Your task to perform on an android device: all mails in gmail Image 0: 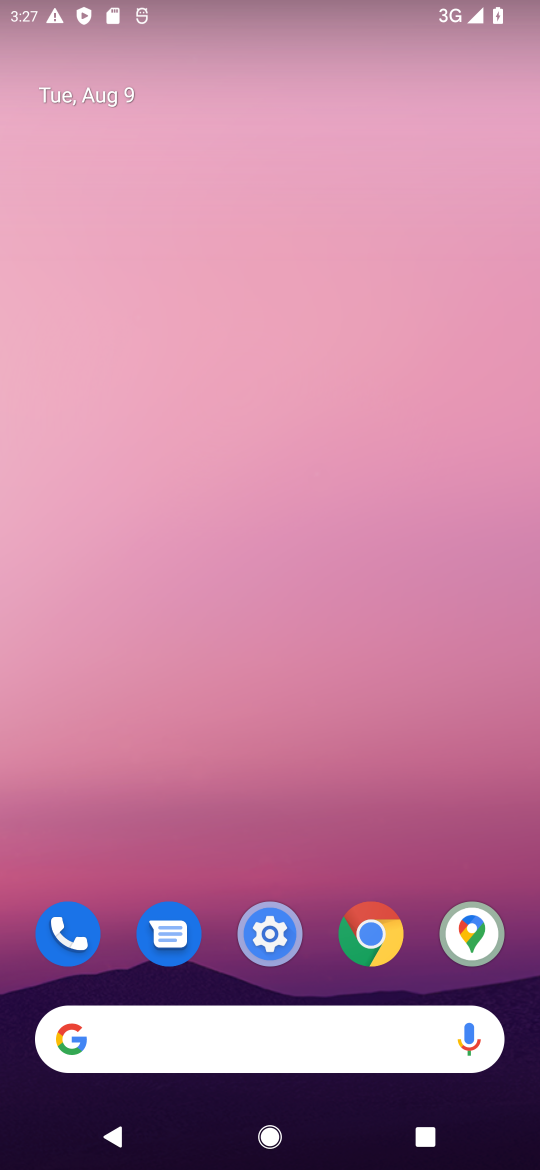
Step 0: drag from (431, 981) to (431, 11)
Your task to perform on an android device: all mails in gmail Image 1: 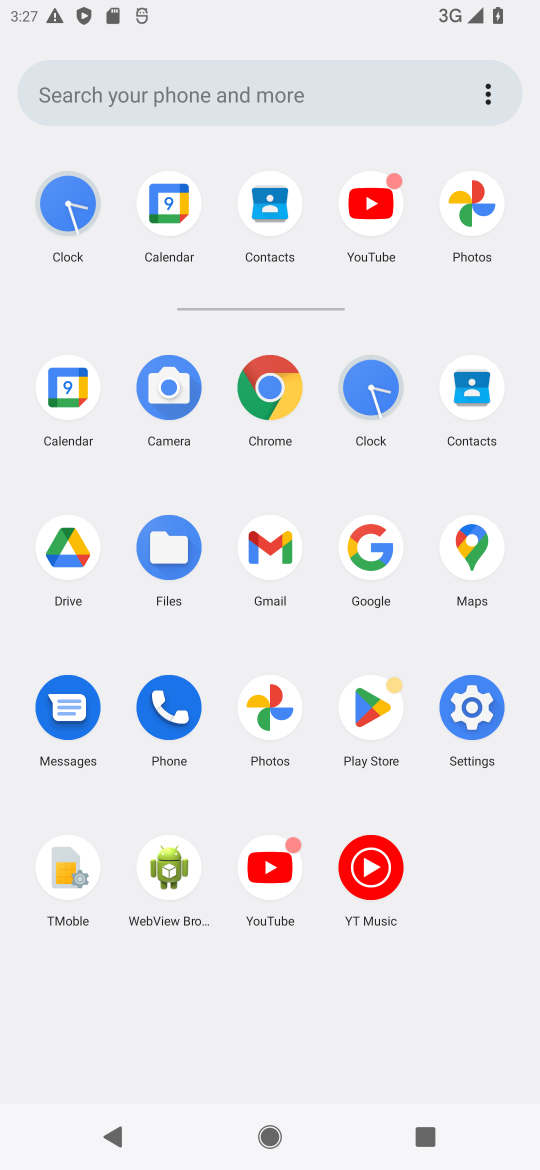
Step 1: click (288, 556)
Your task to perform on an android device: all mails in gmail Image 2: 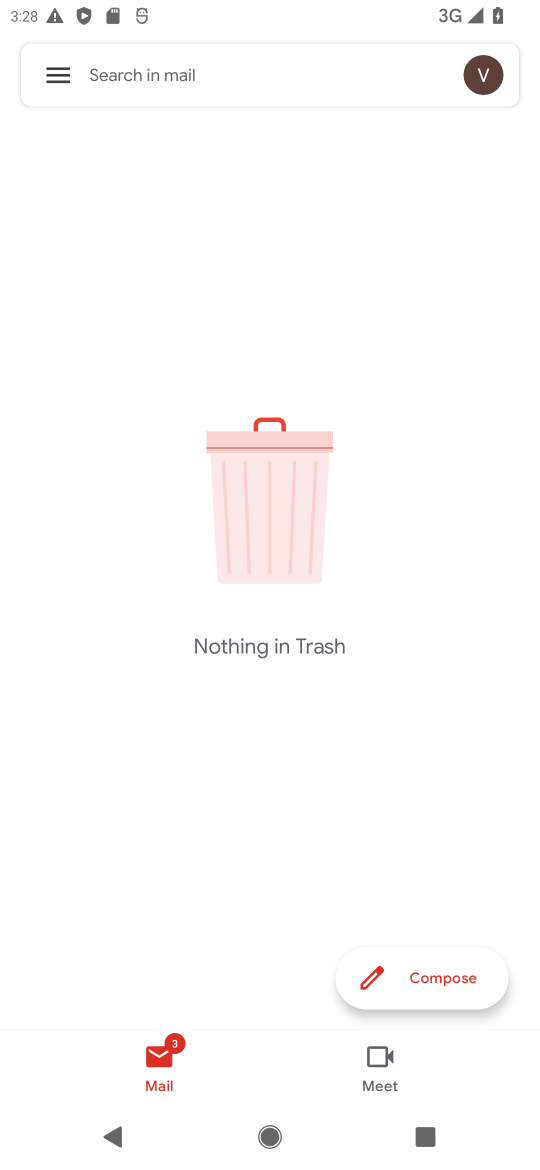
Step 2: click (50, 89)
Your task to perform on an android device: all mails in gmail Image 3: 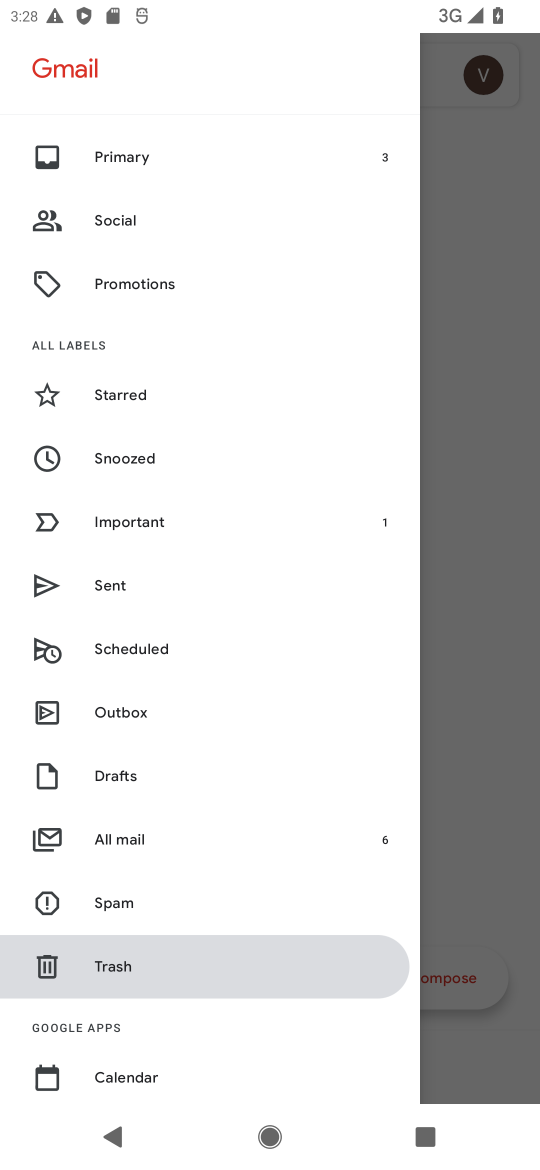
Step 3: click (93, 812)
Your task to perform on an android device: all mails in gmail Image 4: 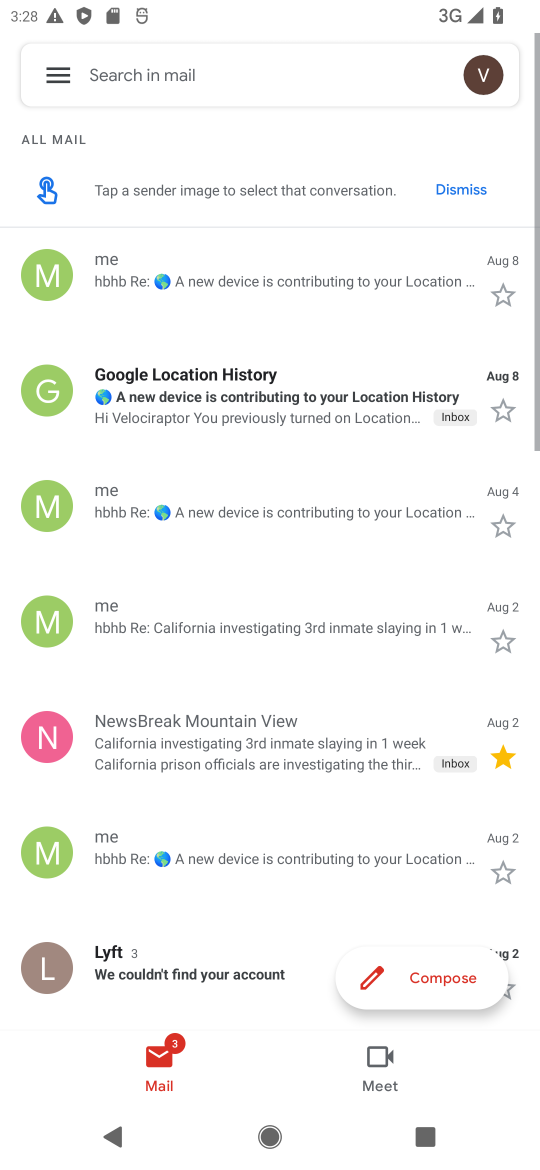
Step 4: task complete